Your task to perform on an android device: find snoozed emails in the gmail app Image 0: 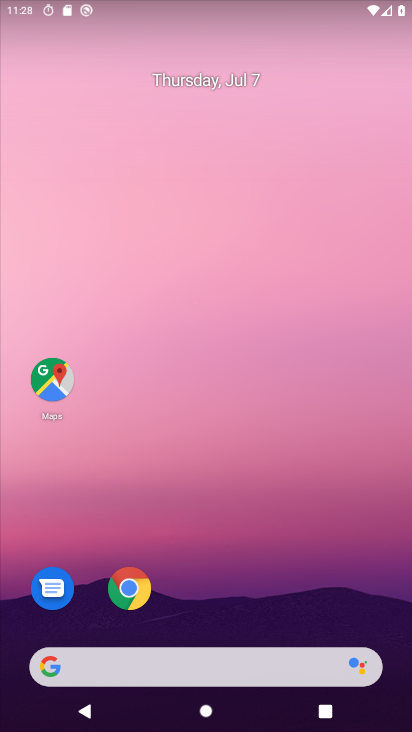
Step 0: press home button
Your task to perform on an android device: find snoozed emails in the gmail app Image 1: 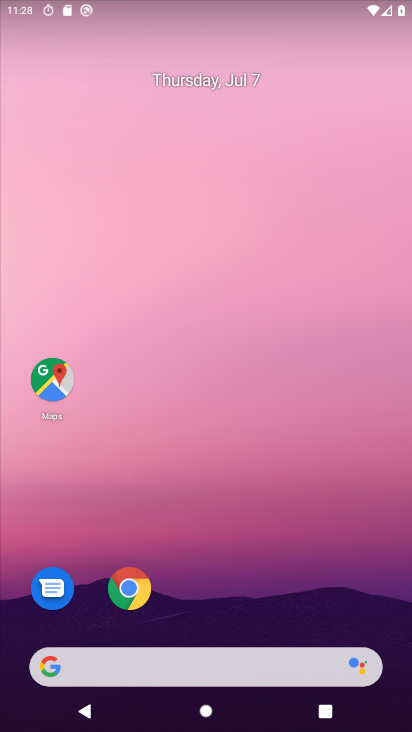
Step 1: drag from (170, 676) to (317, 281)
Your task to perform on an android device: find snoozed emails in the gmail app Image 2: 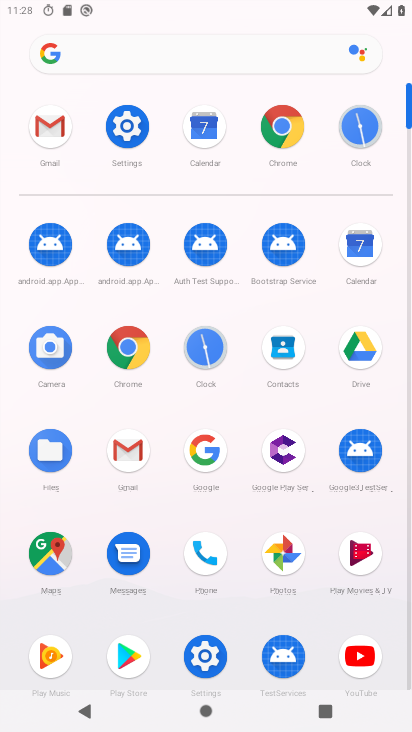
Step 2: click (48, 133)
Your task to perform on an android device: find snoozed emails in the gmail app Image 3: 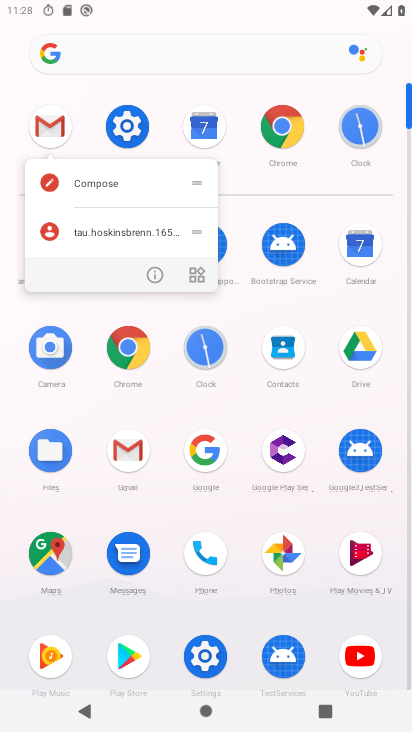
Step 3: click (45, 128)
Your task to perform on an android device: find snoozed emails in the gmail app Image 4: 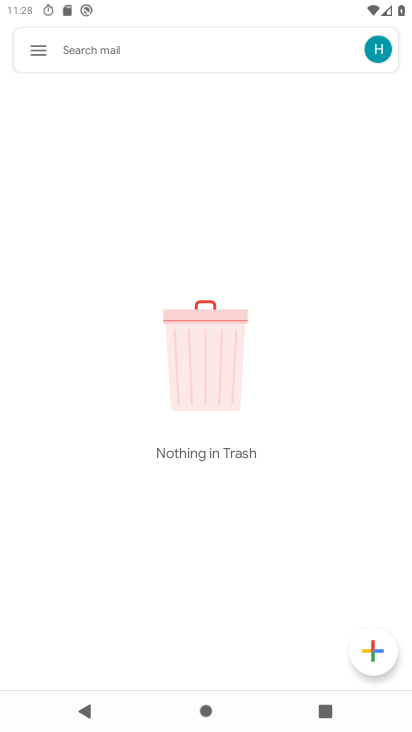
Step 4: click (36, 47)
Your task to perform on an android device: find snoozed emails in the gmail app Image 5: 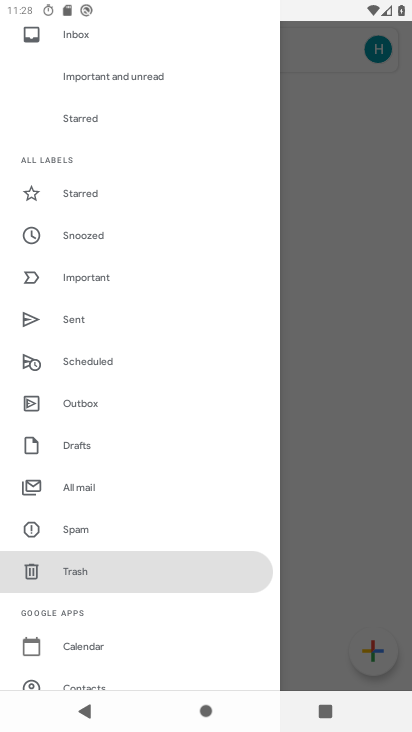
Step 5: click (89, 238)
Your task to perform on an android device: find snoozed emails in the gmail app Image 6: 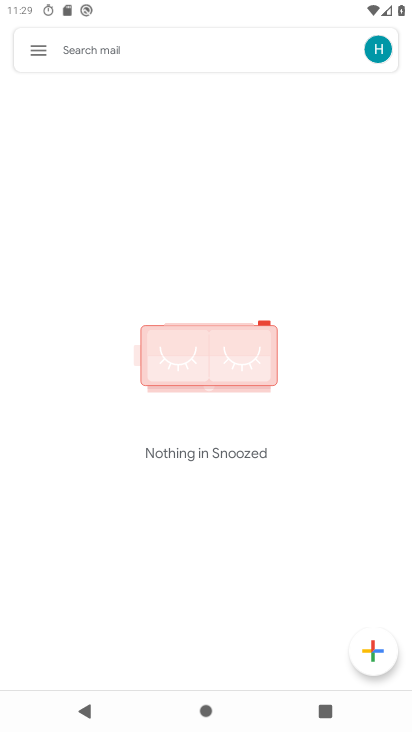
Step 6: task complete